Your task to perform on an android device: Go to internet settings Image 0: 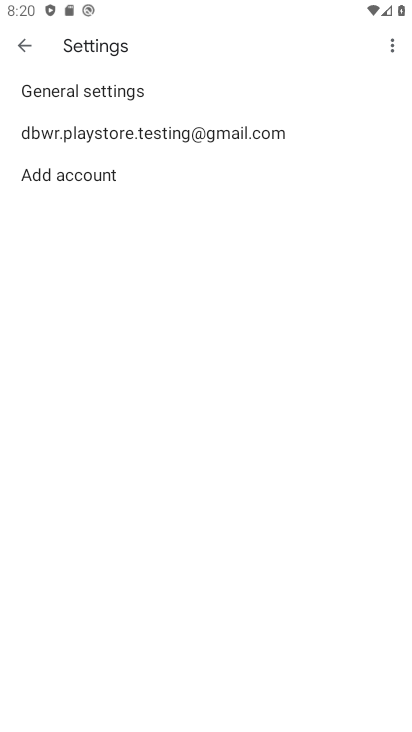
Step 0: press home button
Your task to perform on an android device: Go to internet settings Image 1: 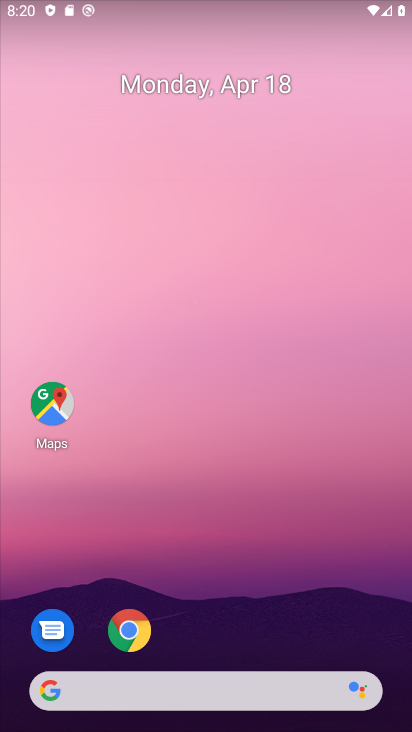
Step 1: drag from (206, 454) to (311, 2)
Your task to perform on an android device: Go to internet settings Image 2: 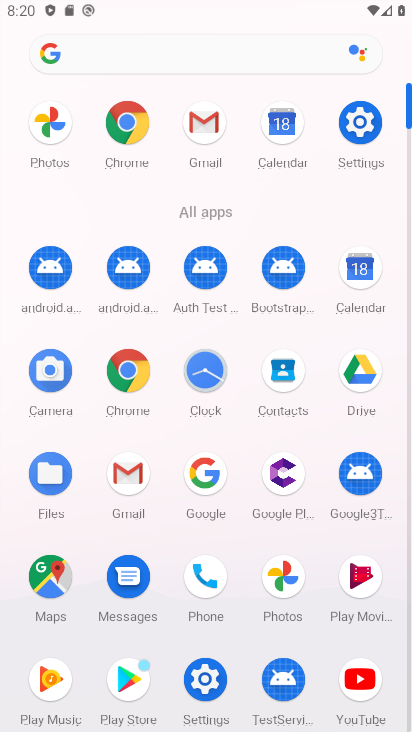
Step 2: click (360, 131)
Your task to perform on an android device: Go to internet settings Image 3: 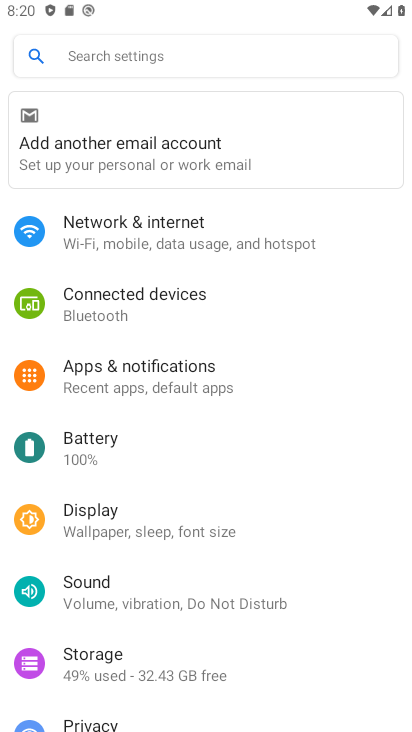
Step 3: click (360, 131)
Your task to perform on an android device: Go to internet settings Image 4: 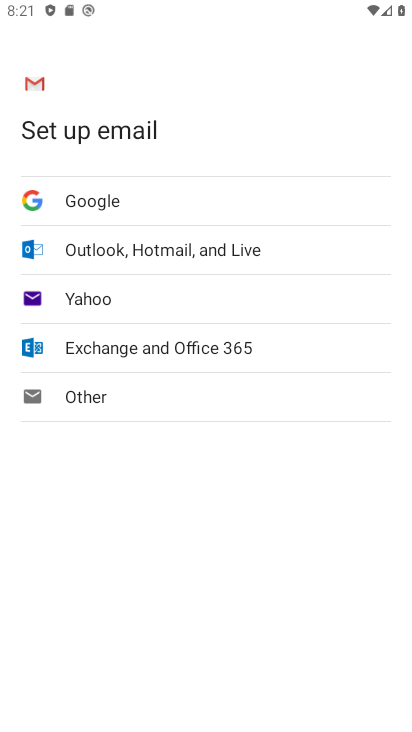
Step 4: press back button
Your task to perform on an android device: Go to internet settings Image 5: 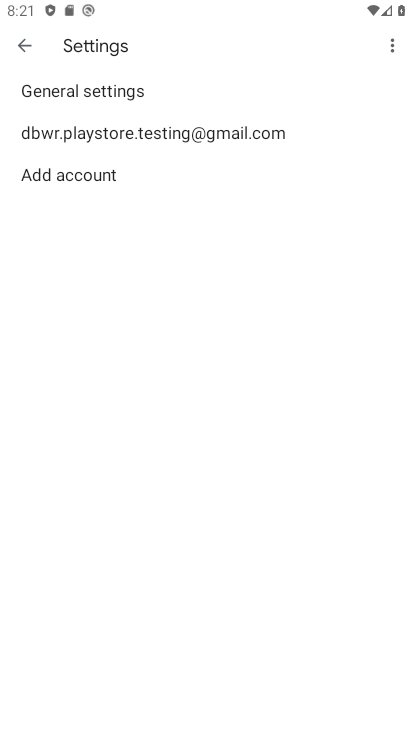
Step 5: press back button
Your task to perform on an android device: Go to internet settings Image 6: 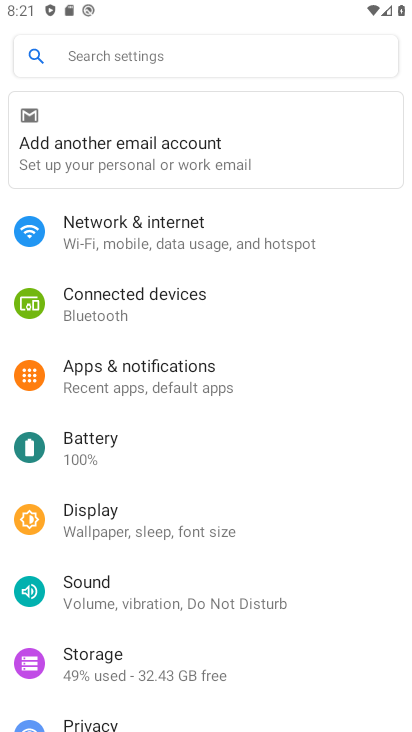
Step 6: click (175, 244)
Your task to perform on an android device: Go to internet settings Image 7: 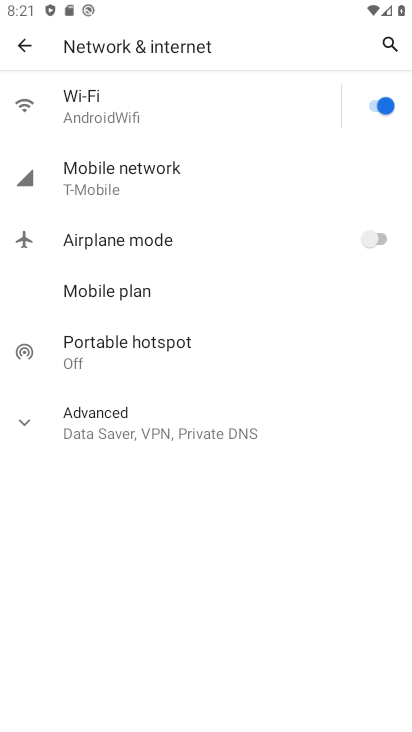
Step 7: task complete